Your task to perform on an android device: Go to Android settings Image 0: 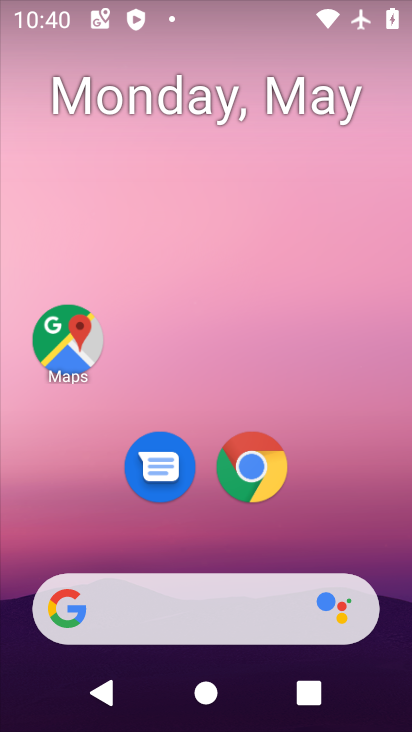
Step 0: drag from (228, 547) to (284, 3)
Your task to perform on an android device: Go to Android settings Image 1: 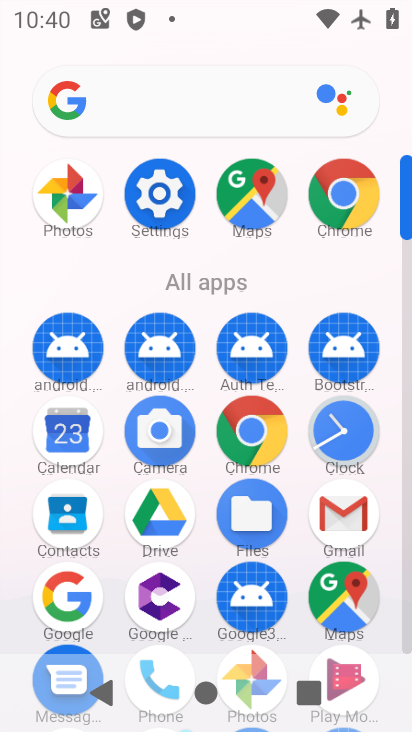
Step 1: click (176, 203)
Your task to perform on an android device: Go to Android settings Image 2: 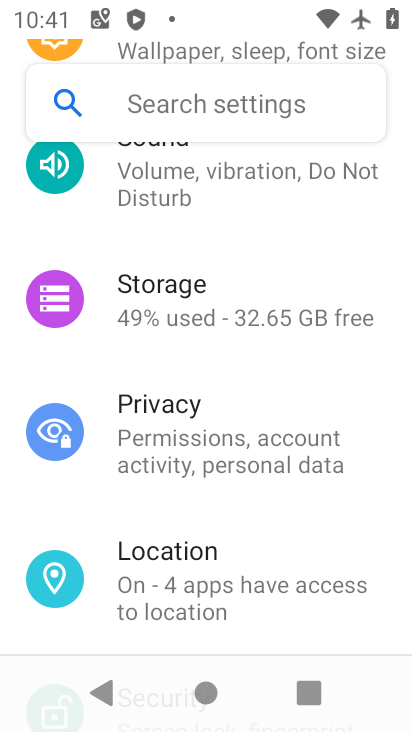
Step 2: drag from (215, 578) to (210, 219)
Your task to perform on an android device: Go to Android settings Image 3: 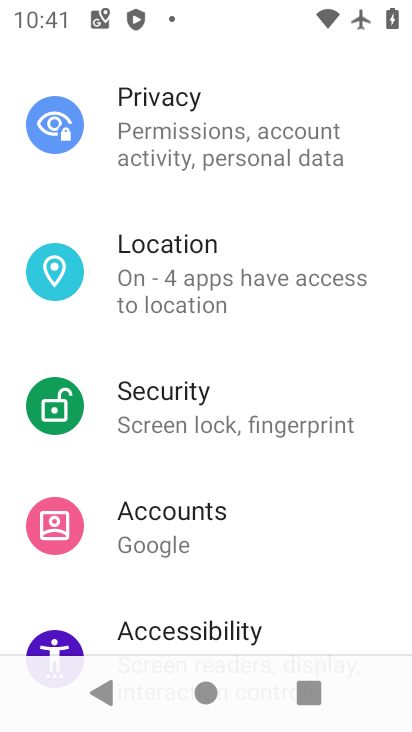
Step 3: drag from (175, 588) to (167, 231)
Your task to perform on an android device: Go to Android settings Image 4: 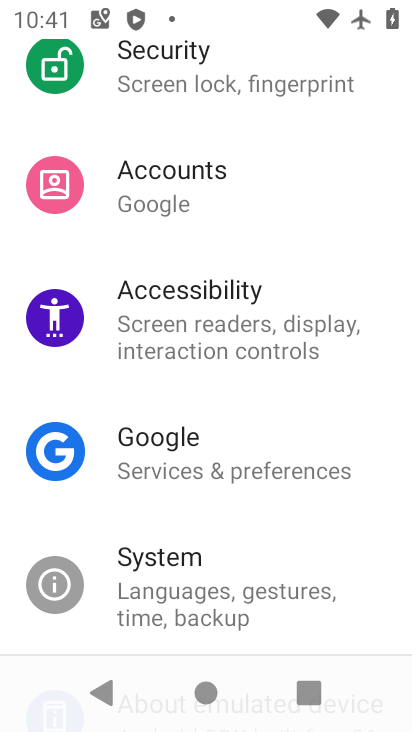
Step 4: drag from (152, 580) to (153, 252)
Your task to perform on an android device: Go to Android settings Image 5: 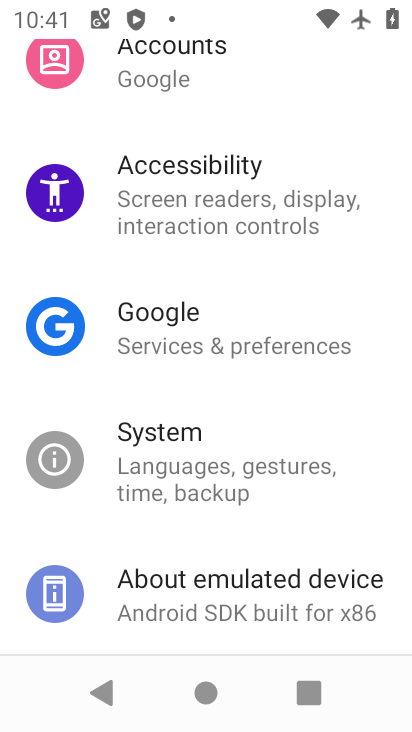
Step 5: click (131, 449)
Your task to perform on an android device: Go to Android settings Image 6: 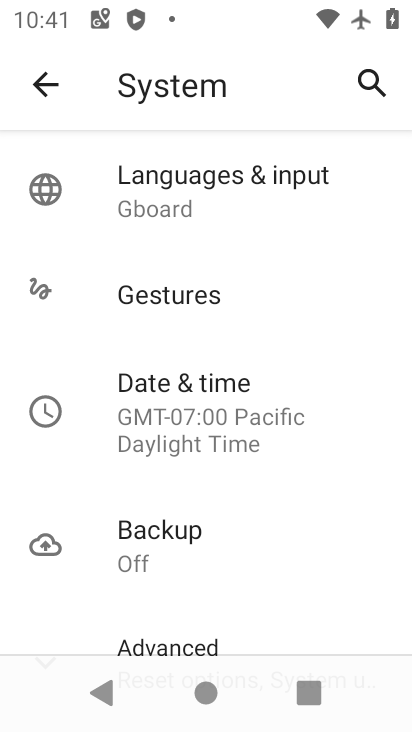
Step 6: task complete